Your task to perform on an android device: turn on bluetooth scan Image 0: 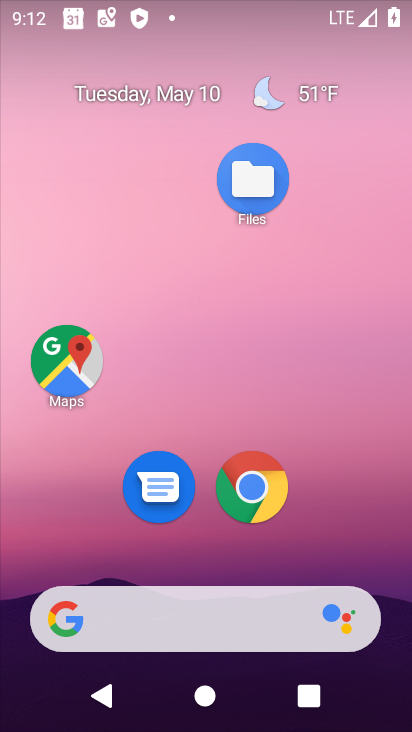
Step 0: drag from (197, 539) to (242, 42)
Your task to perform on an android device: turn on bluetooth scan Image 1: 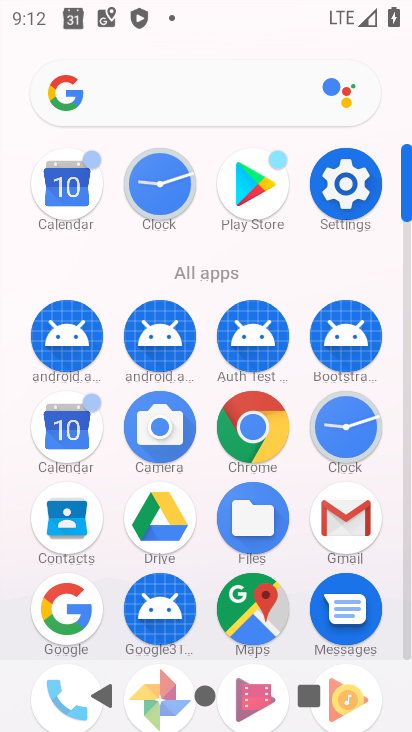
Step 1: click (344, 182)
Your task to perform on an android device: turn on bluetooth scan Image 2: 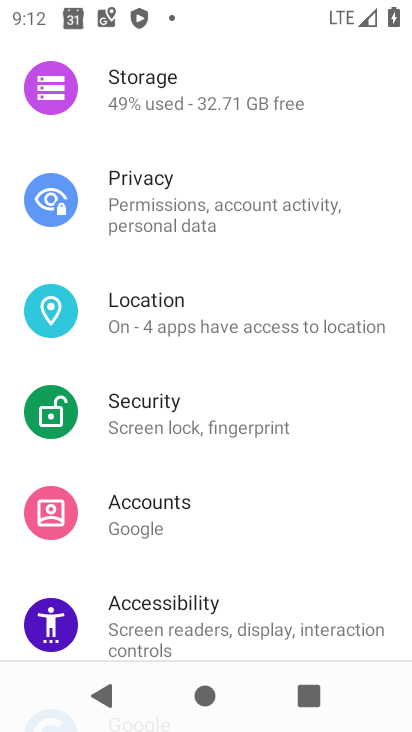
Step 2: click (199, 308)
Your task to perform on an android device: turn on bluetooth scan Image 3: 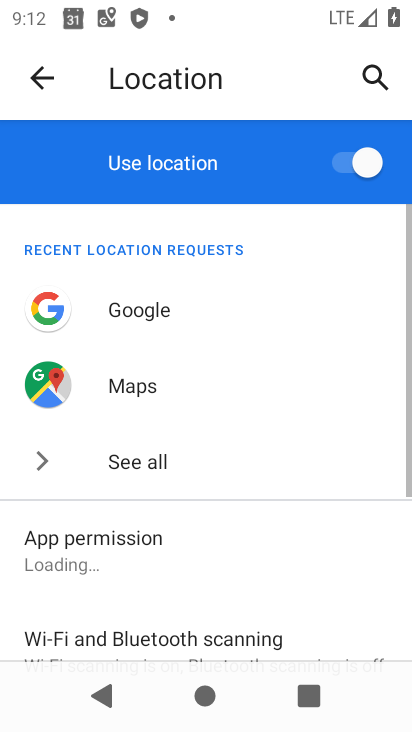
Step 3: drag from (199, 553) to (203, 261)
Your task to perform on an android device: turn on bluetooth scan Image 4: 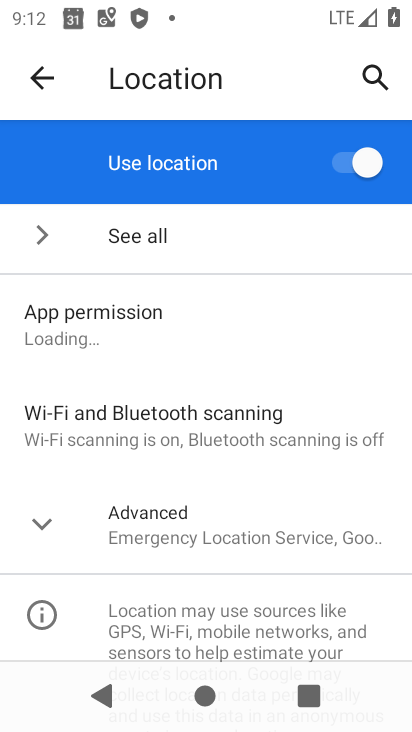
Step 4: click (132, 530)
Your task to perform on an android device: turn on bluetooth scan Image 5: 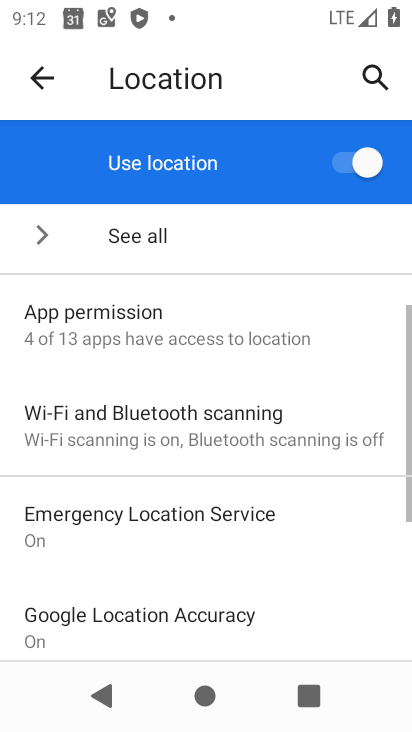
Step 5: click (155, 445)
Your task to perform on an android device: turn on bluetooth scan Image 6: 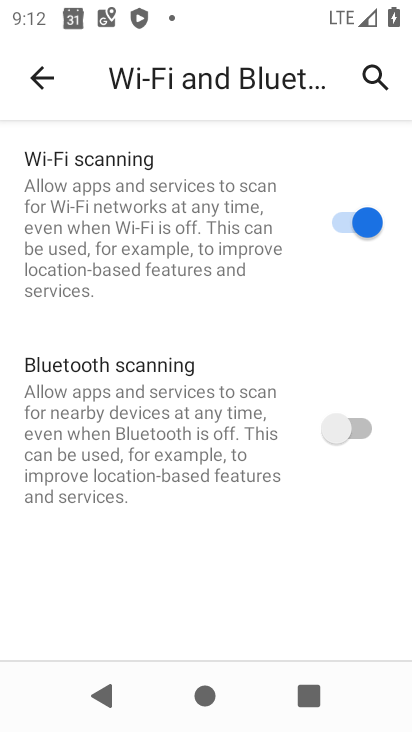
Step 6: click (354, 433)
Your task to perform on an android device: turn on bluetooth scan Image 7: 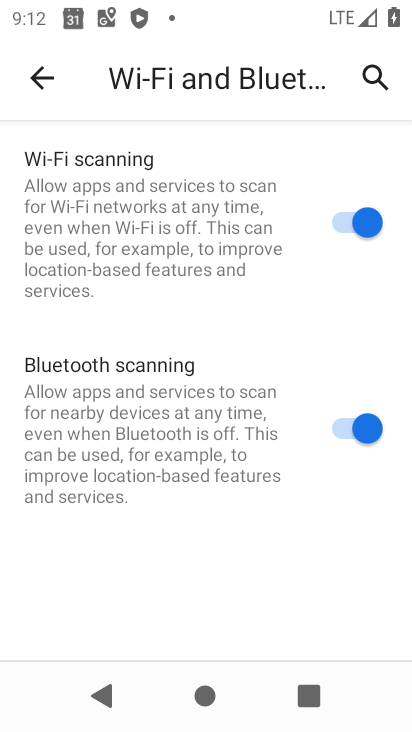
Step 7: task complete